Your task to perform on an android device: Go to wifi settings Image 0: 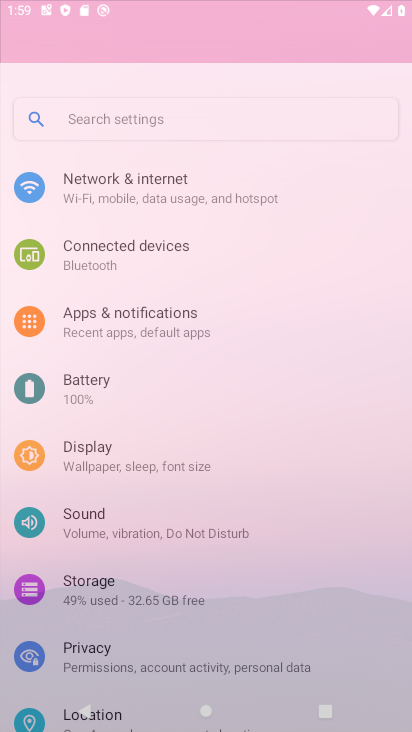
Step 0: drag from (132, 16) to (404, 488)
Your task to perform on an android device: Go to wifi settings Image 1: 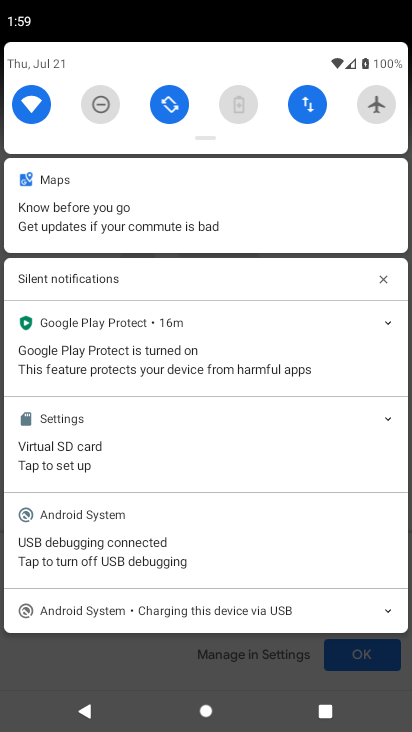
Step 1: press home button
Your task to perform on an android device: Go to wifi settings Image 2: 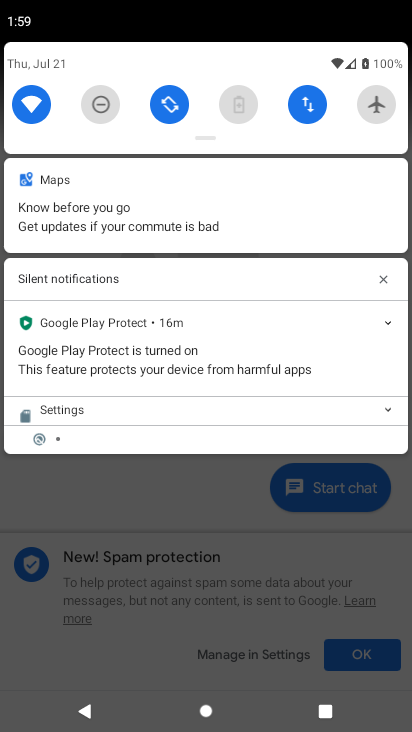
Step 2: press home button
Your task to perform on an android device: Go to wifi settings Image 3: 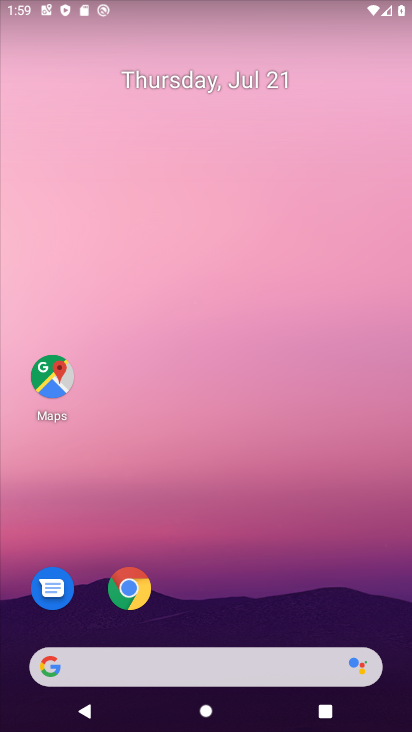
Step 3: drag from (318, 19) to (237, 0)
Your task to perform on an android device: Go to wifi settings Image 4: 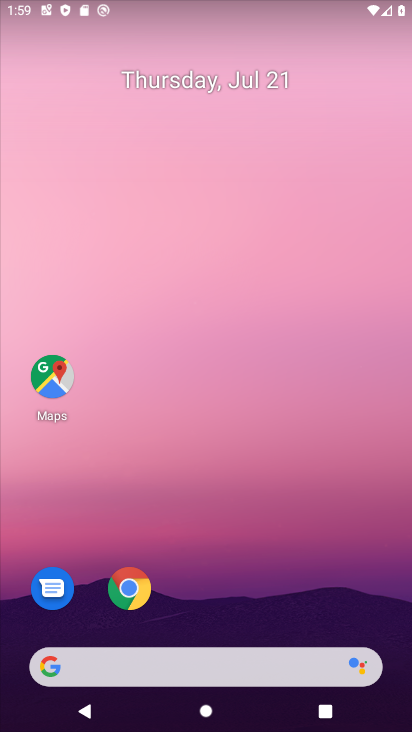
Step 4: drag from (180, 590) to (200, 213)
Your task to perform on an android device: Go to wifi settings Image 5: 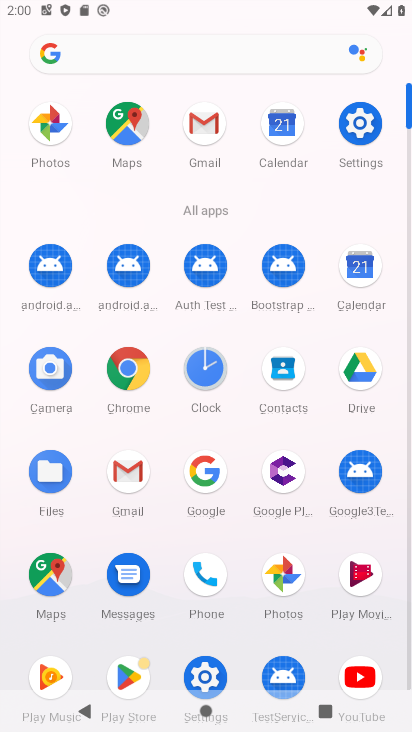
Step 5: click (213, 682)
Your task to perform on an android device: Go to wifi settings Image 6: 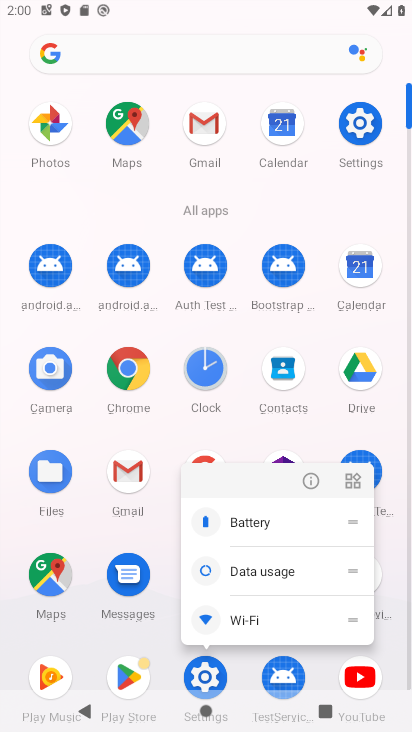
Step 6: click (314, 479)
Your task to perform on an android device: Go to wifi settings Image 7: 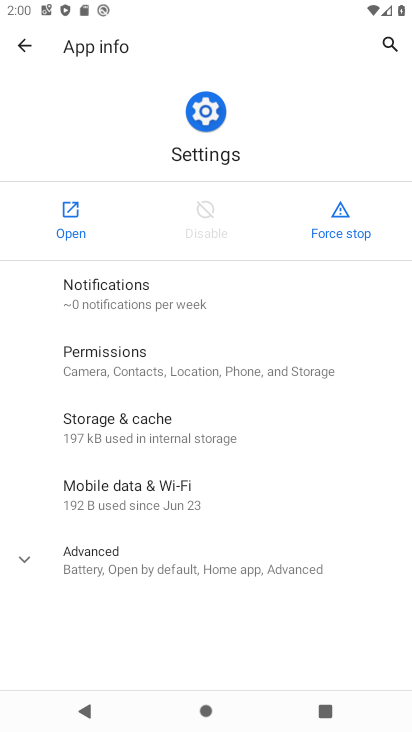
Step 7: click (75, 213)
Your task to perform on an android device: Go to wifi settings Image 8: 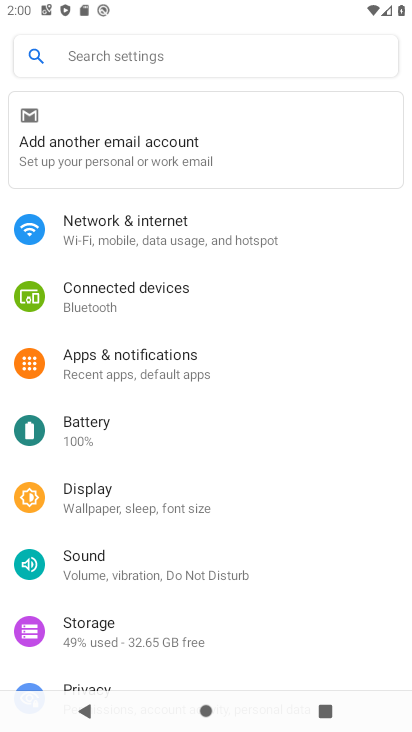
Step 8: click (100, 238)
Your task to perform on an android device: Go to wifi settings Image 9: 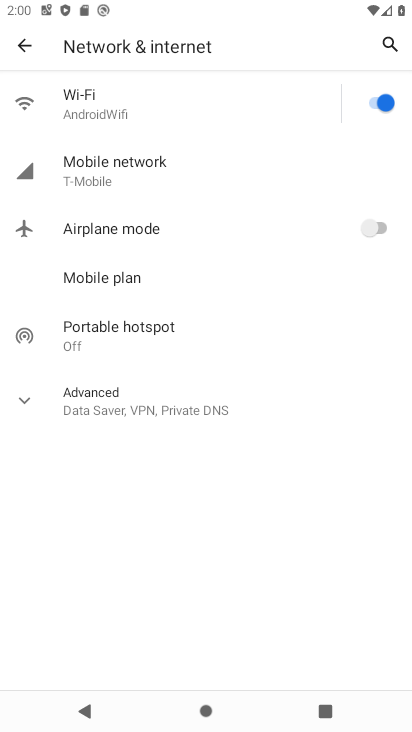
Step 9: click (166, 108)
Your task to perform on an android device: Go to wifi settings Image 10: 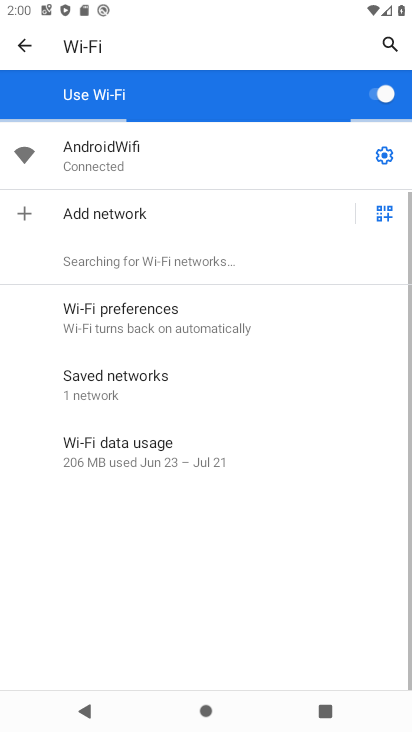
Step 10: click (385, 155)
Your task to perform on an android device: Go to wifi settings Image 11: 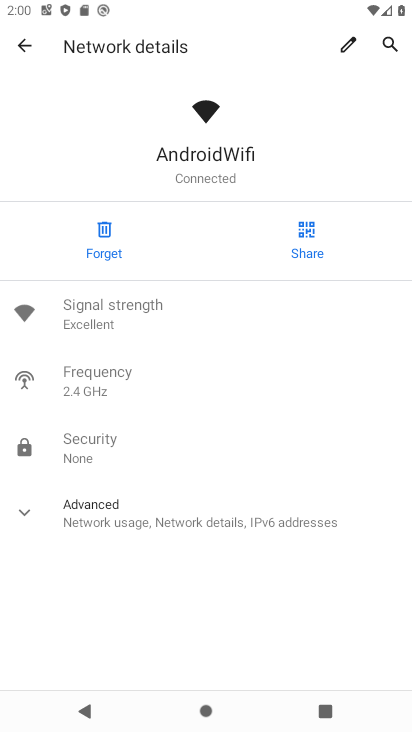
Step 11: task complete